Your task to perform on an android device: Set the phone to "Do not disturb". Image 0: 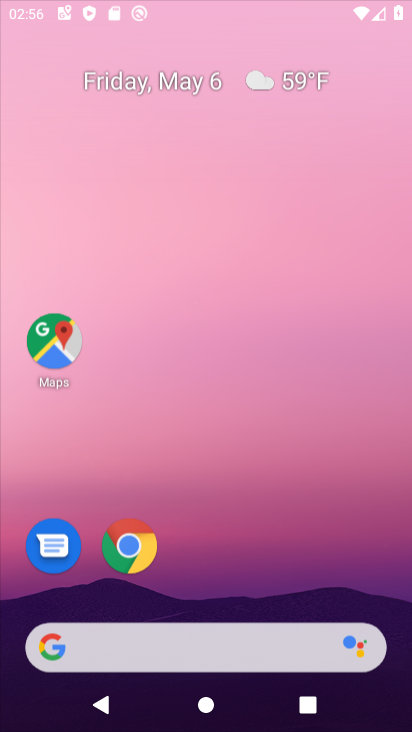
Step 0: click (220, 167)
Your task to perform on an android device: Set the phone to "Do not disturb". Image 1: 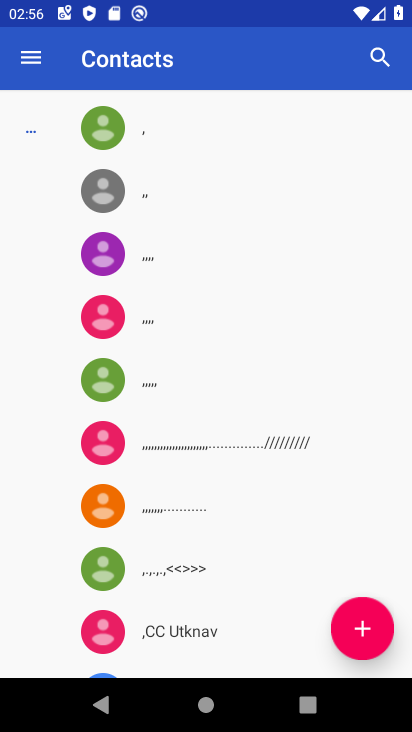
Step 1: press home button
Your task to perform on an android device: Set the phone to "Do not disturb". Image 2: 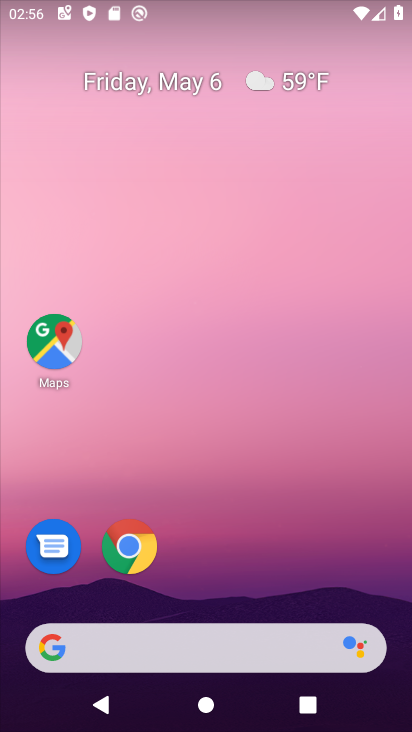
Step 2: drag from (277, 562) to (278, 40)
Your task to perform on an android device: Set the phone to "Do not disturb". Image 3: 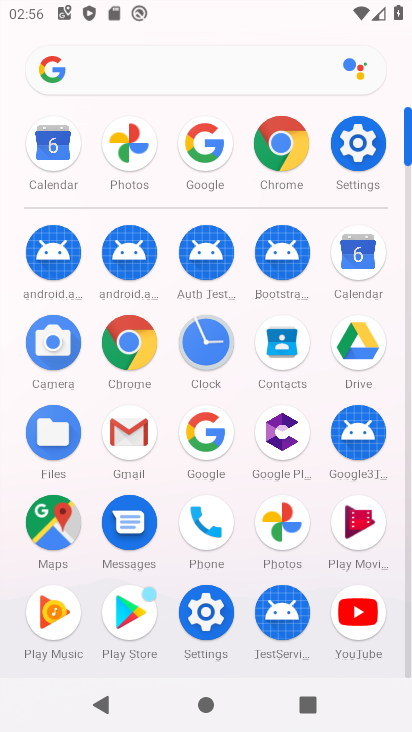
Step 3: click (362, 122)
Your task to perform on an android device: Set the phone to "Do not disturb". Image 4: 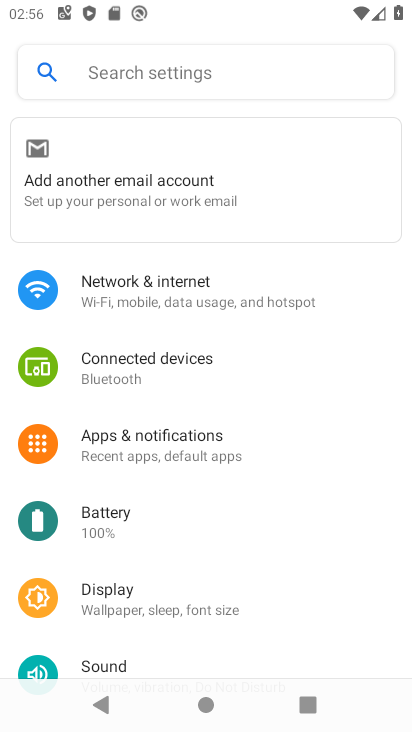
Step 4: drag from (222, 543) to (254, 292)
Your task to perform on an android device: Set the phone to "Do not disturb". Image 5: 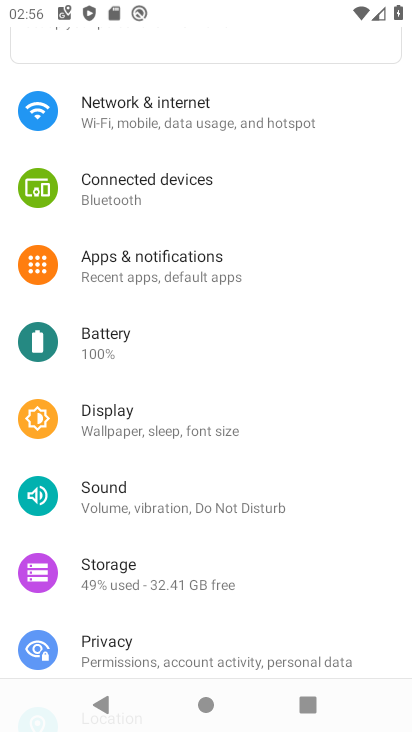
Step 5: click (217, 512)
Your task to perform on an android device: Set the phone to "Do not disturb". Image 6: 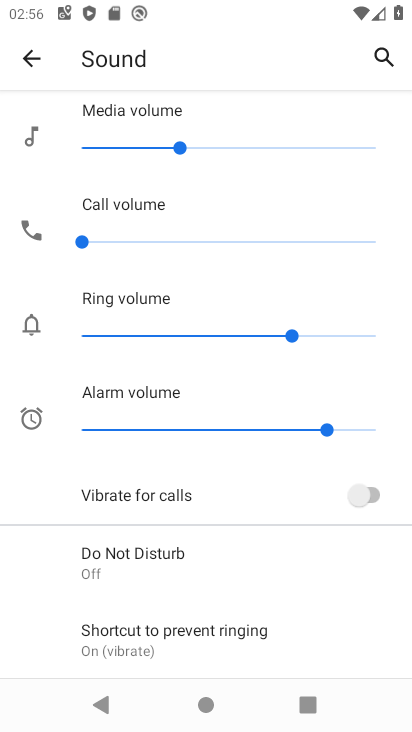
Step 6: click (134, 574)
Your task to perform on an android device: Set the phone to "Do not disturb". Image 7: 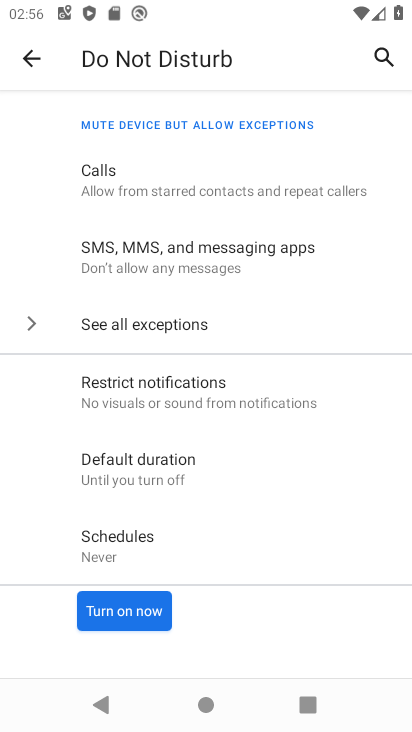
Step 7: click (151, 599)
Your task to perform on an android device: Set the phone to "Do not disturb". Image 8: 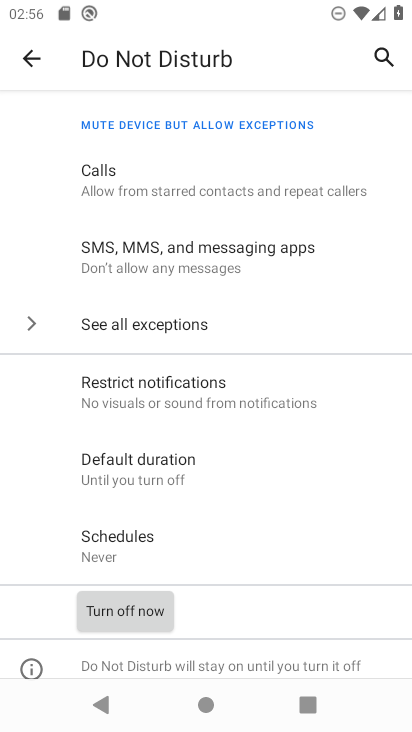
Step 8: task complete